Your task to perform on an android device: turn on improve location accuracy Image 0: 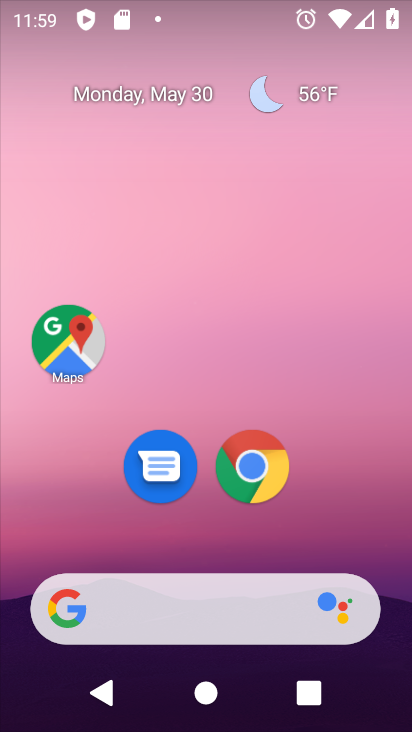
Step 0: drag from (170, 586) to (176, 106)
Your task to perform on an android device: turn on improve location accuracy Image 1: 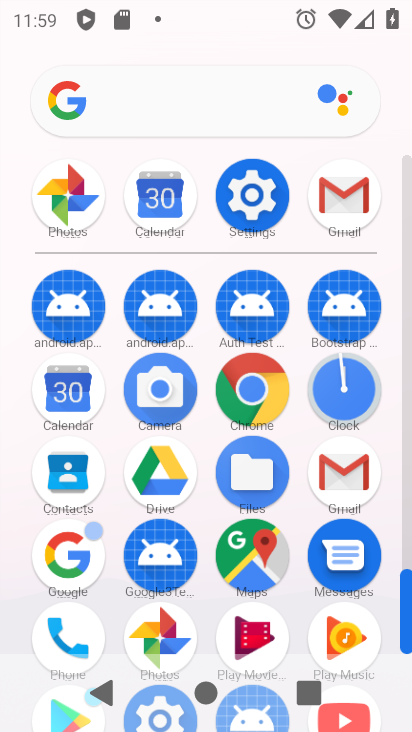
Step 1: click (250, 217)
Your task to perform on an android device: turn on improve location accuracy Image 2: 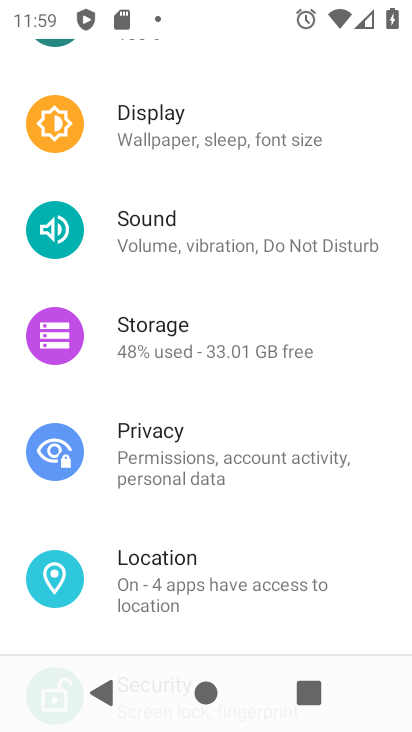
Step 2: click (174, 573)
Your task to perform on an android device: turn on improve location accuracy Image 3: 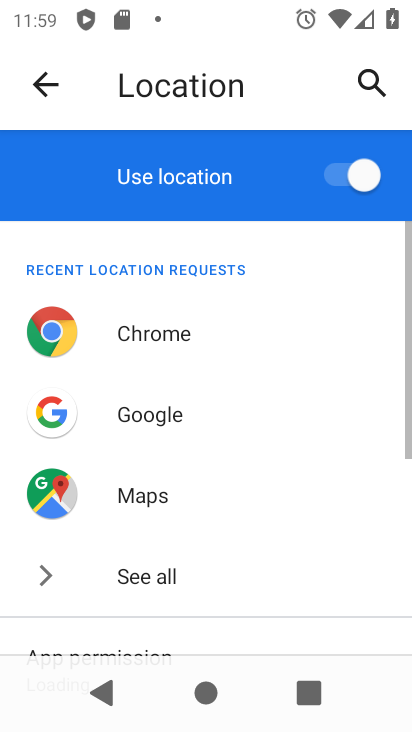
Step 3: drag from (202, 581) to (151, 101)
Your task to perform on an android device: turn on improve location accuracy Image 4: 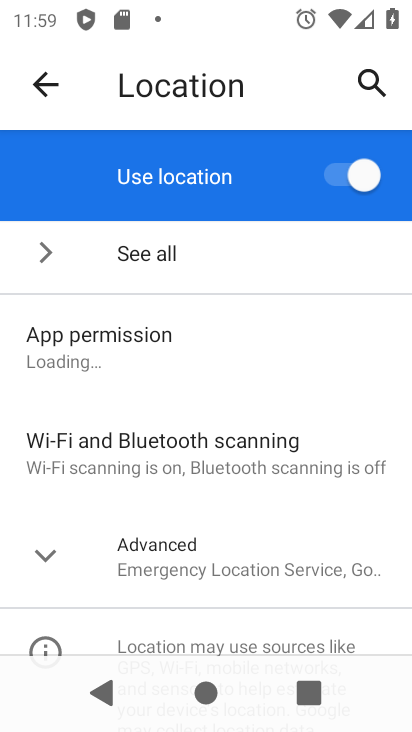
Step 4: click (304, 556)
Your task to perform on an android device: turn on improve location accuracy Image 5: 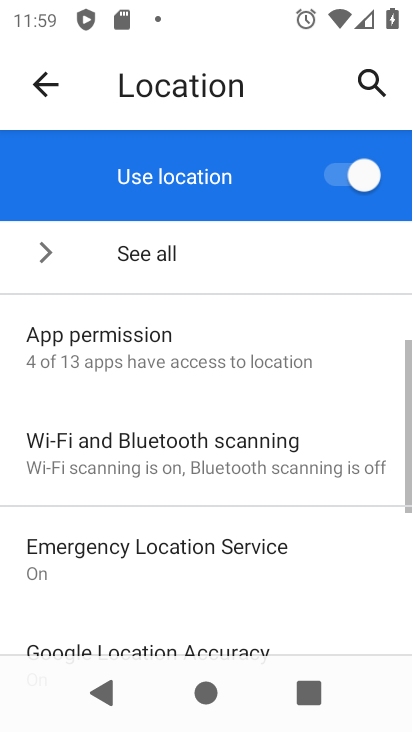
Step 5: drag from (242, 552) to (192, 376)
Your task to perform on an android device: turn on improve location accuracy Image 6: 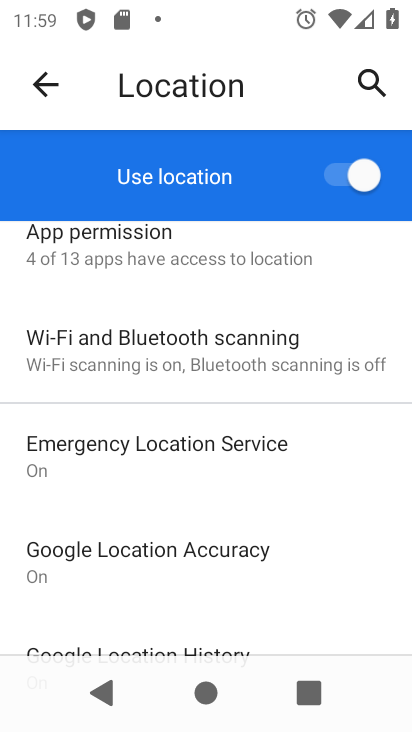
Step 6: click (184, 546)
Your task to perform on an android device: turn on improve location accuracy Image 7: 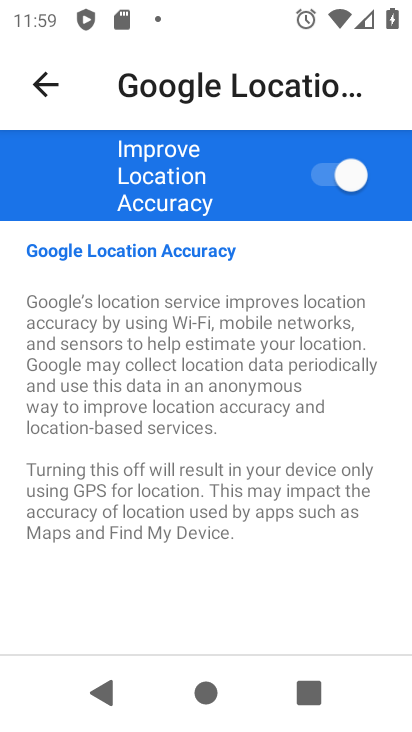
Step 7: task complete